Your task to perform on an android device: delete a single message in the gmail app Image 0: 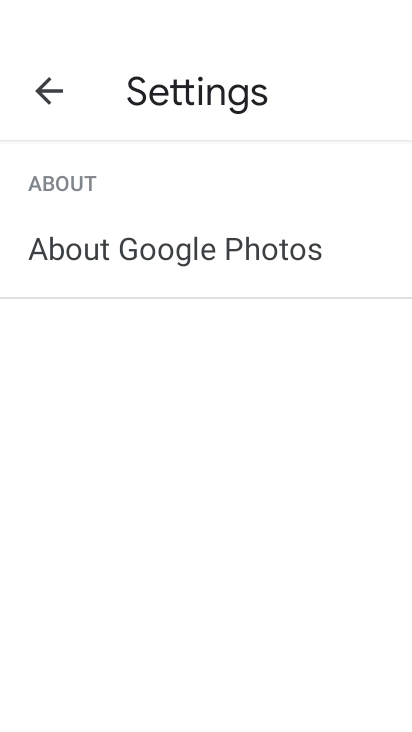
Step 0: press home button
Your task to perform on an android device: delete a single message in the gmail app Image 1: 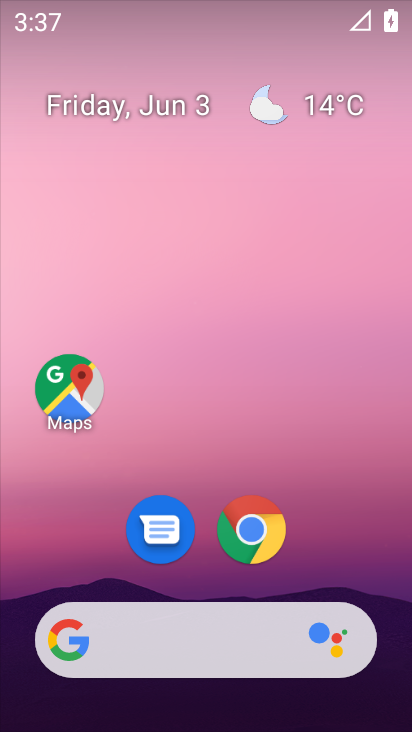
Step 1: drag from (307, 583) to (321, 0)
Your task to perform on an android device: delete a single message in the gmail app Image 2: 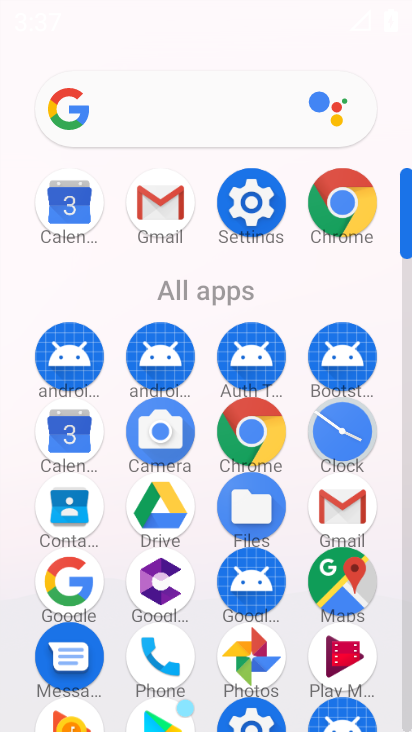
Step 2: click (316, 520)
Your task to perform on an android device: delete a single message in the gmail app Image 3: 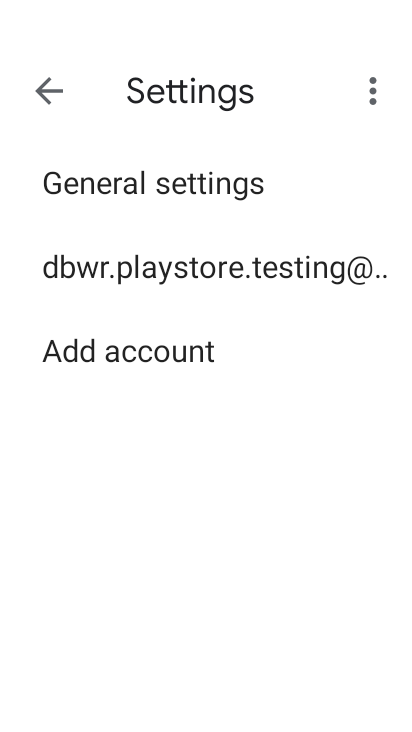
Step 3: click (47, 102)
Your task to perform on an android device: delete a single message in the gmail app Image 4: 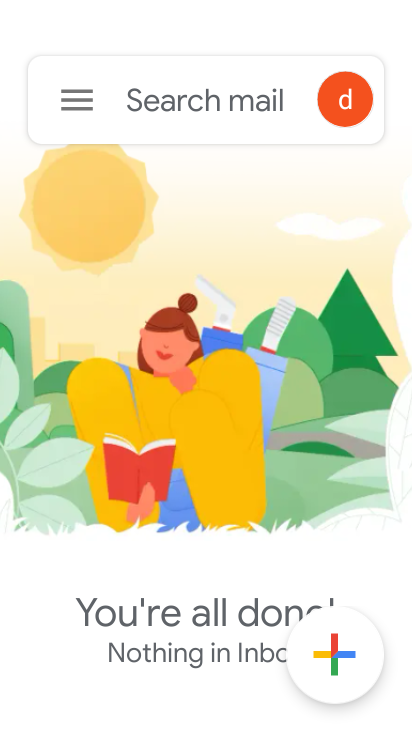
Step 4: task complete